Your task to perform on an android device: Go to CNN.com Image 0: 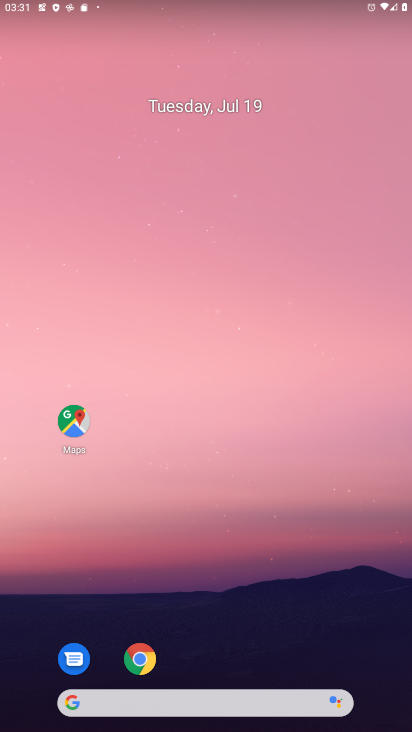
Step 0: press home button
Your task to perform on an android device: Go to CNN.com Image 1: 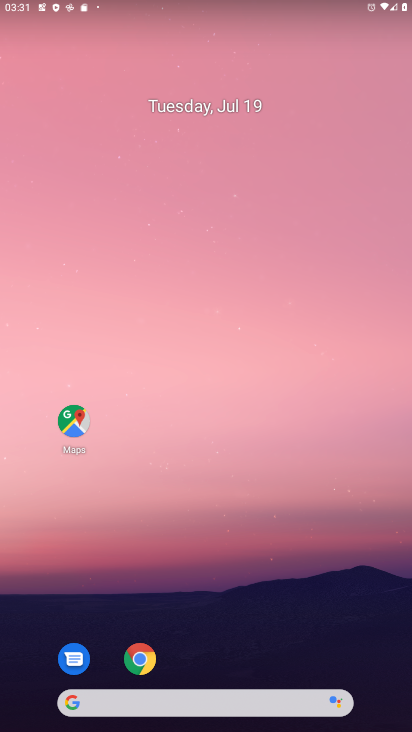
Step 1: click (136, 656)
Your task to perform on an android device: Go to CNN.com Image 2: 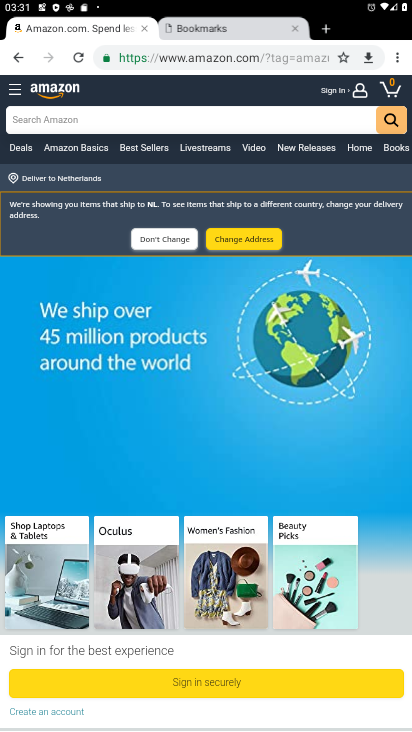
Step 2: click (190, 55)
Your task to perform on an android device: Go to CNN.com Image 3: 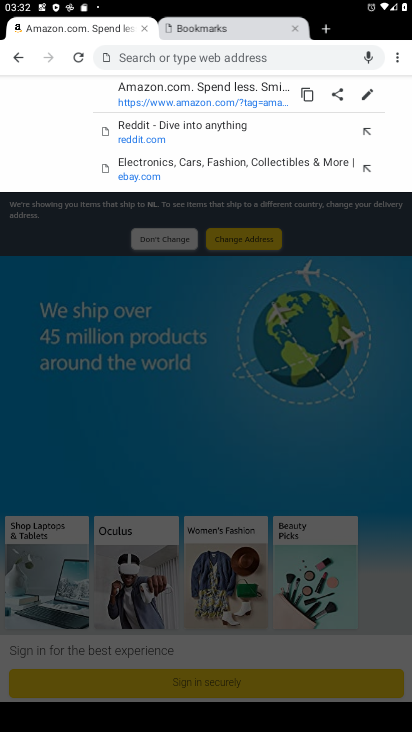
Step 3: type "CNN.com"
Your task to perform on an android device: Go to CNN.com Image 4: 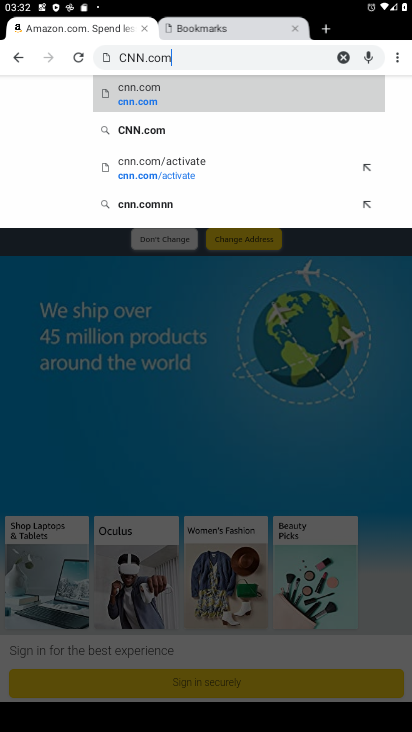
Step 4: click (150, 106)
Your task to perform on an android device: Go to CNN.com Image 5: 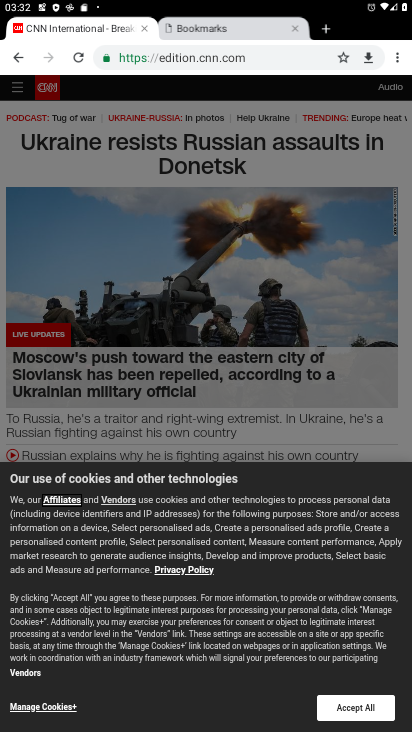
Step 5: task complete